Your task to perform on an android device: Open Yahoo.com Image 0: 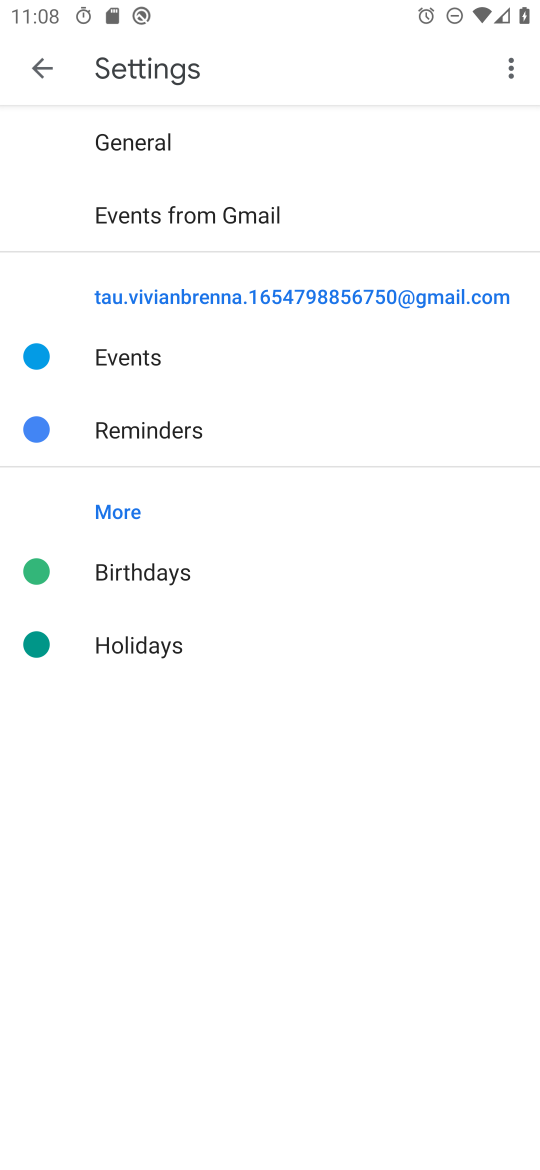
Step 0: press home button
Your task to perform on an android device: Open Yahoo.com Image 1: 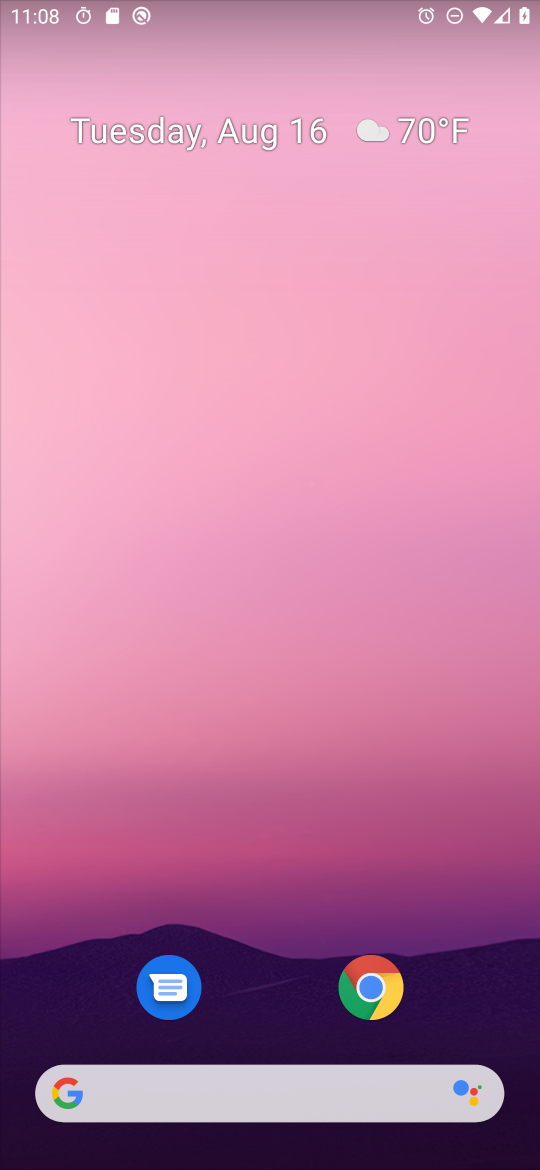
Step 1: click (125, 1087)
Your task to perform on an android device: Open Yahoo.com Image 2: 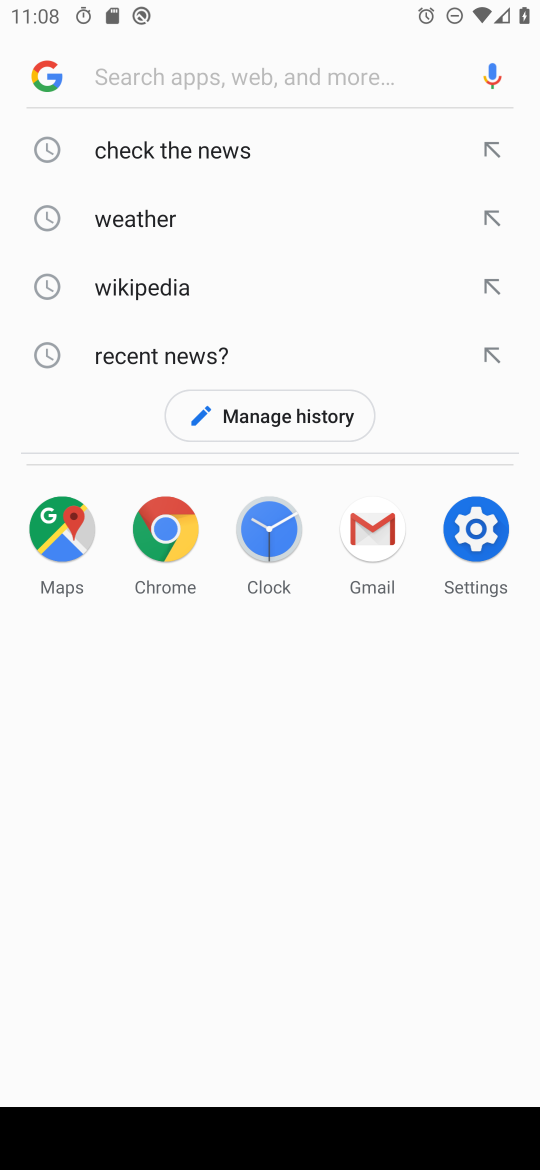
Step 2: type "Yahoo.com"
Your task to perform on an android device: Open Yahoo.com Image 3: 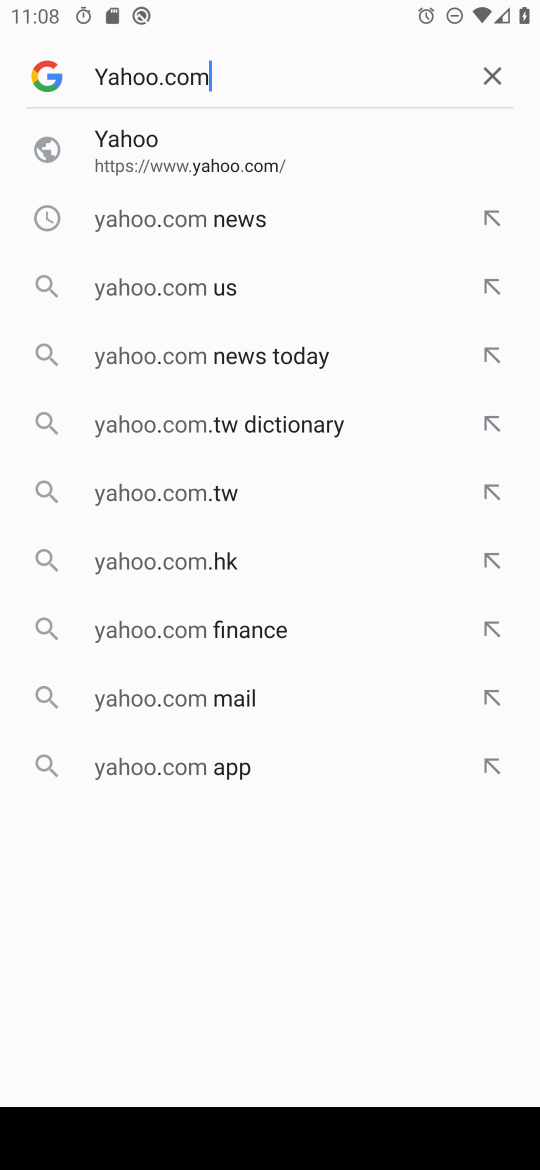
Step 3: click (152, 131)
Your task to perform on an android device: Open Yahoo.com Image 4: 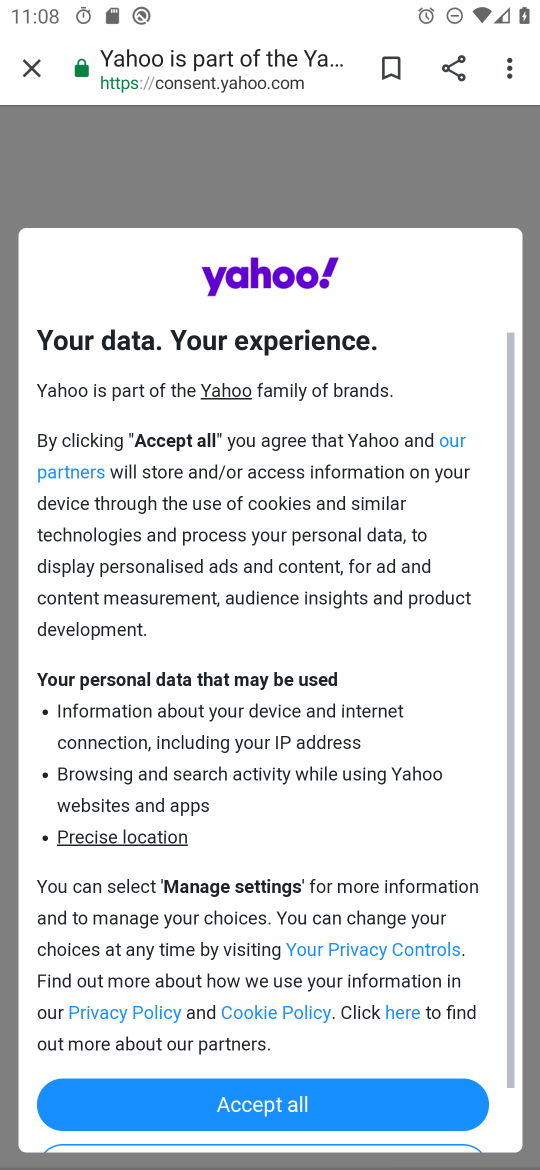
Step 4: task complete